Your task to perform on an android device: allow notifications from all sites in the chrome app Image 0: 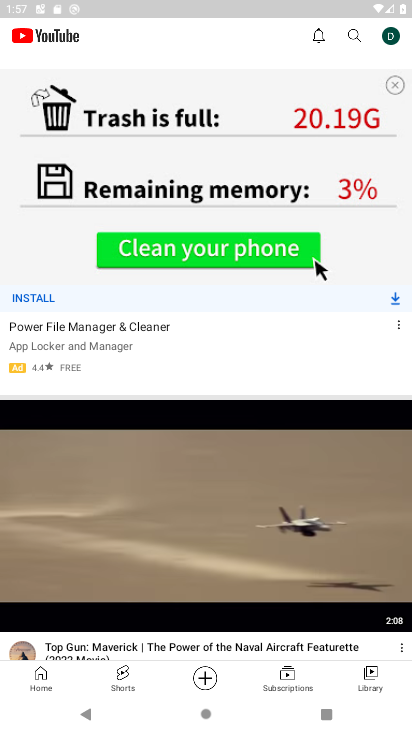
Step 0: press home button
Your task to perform on an android device: allow notifications from all sites in the chrome app Image 1: 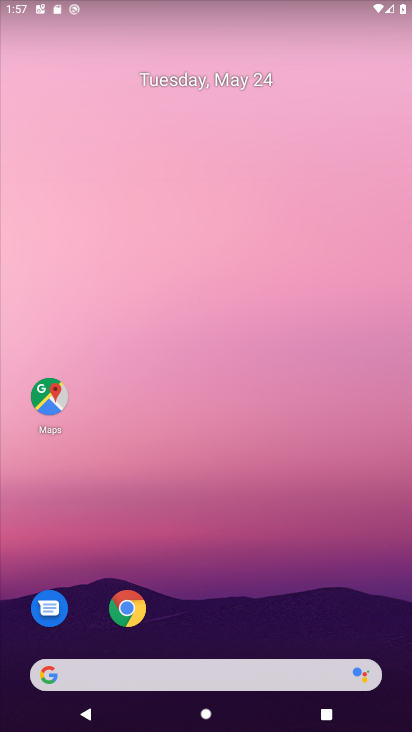
Step 1: click (132, 625)
Your task to perform on an android device: allow notifications from all sites in the chrome app Image 2: 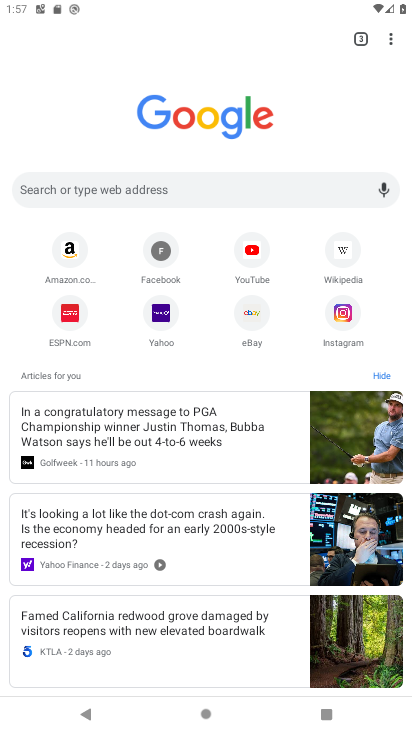
Step 2: click (389, 32)
Your task to perform on an android device: allow notifications from all sites in the chrome app Image 3: 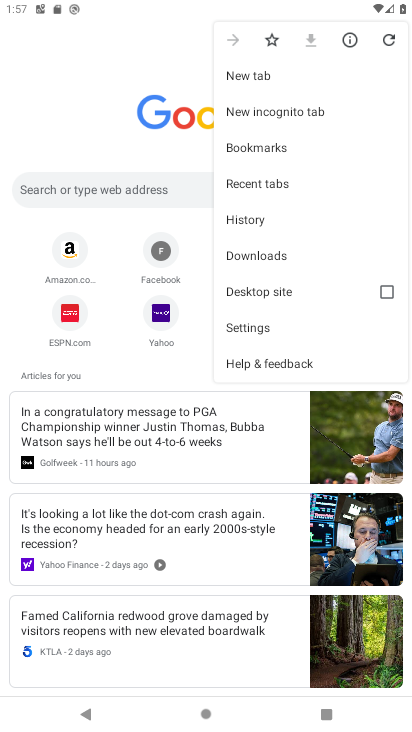
Step 3: click (309, 319)
Your task to perform on an android device: allow notifications from all sites in the chrome app Image 4: 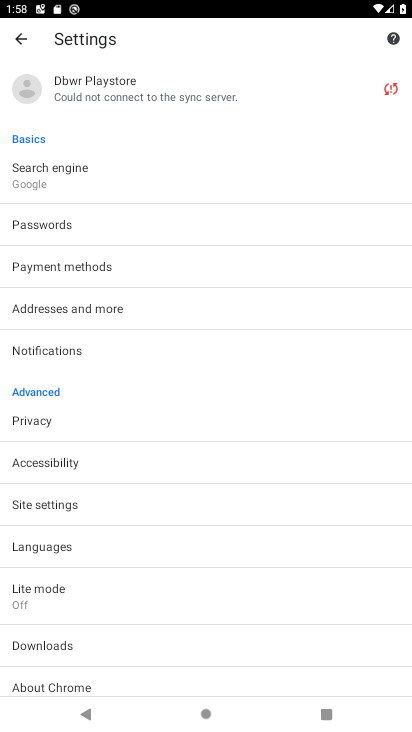
Step 4: click (58, 348)
Your task to perform on an android device: allow notifications from all sites in the chrome app Image 5: 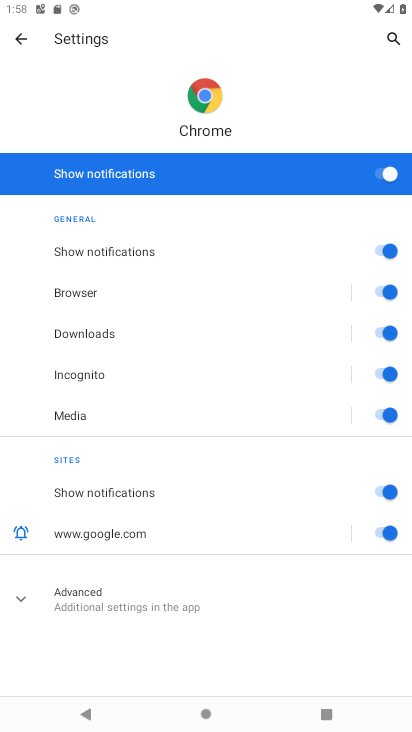
Step 5: task complete